Your task to perform on an android device: Add "logitech g903" to the cart on amazon.com, then select checkout. Image 0: 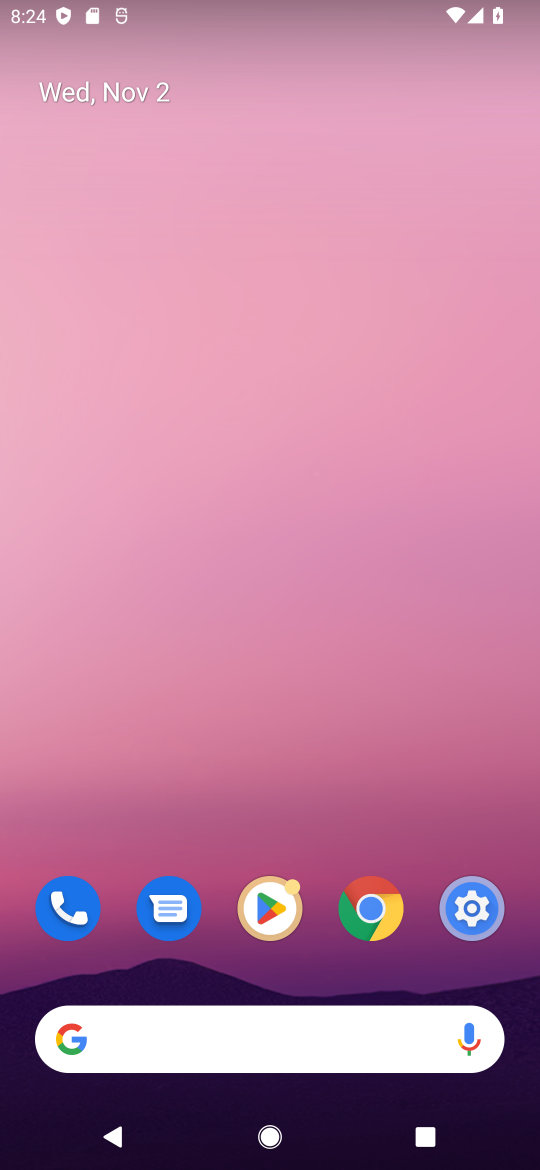
Step 0: click (191, 1024)
Your task to perform on an android device: Add "logitech g903" to the cart on amazon.com, then select checkout. Image 1: 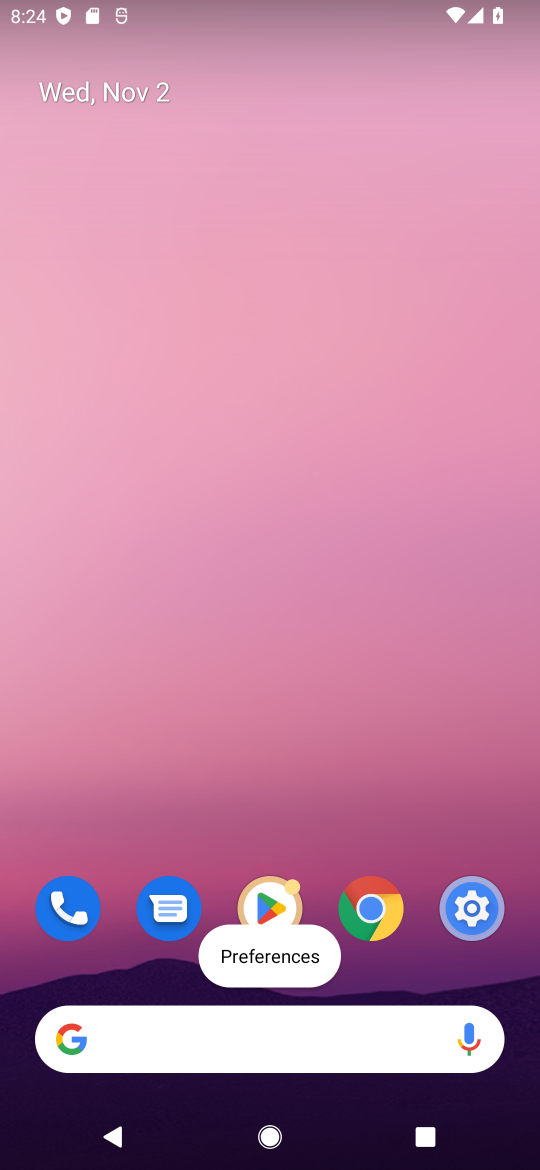
Step 1: click (191, 1024)
Your task to perform on an android device: Add "logitech g903" to the cart on amazon.com, then select checkout. Image 2: 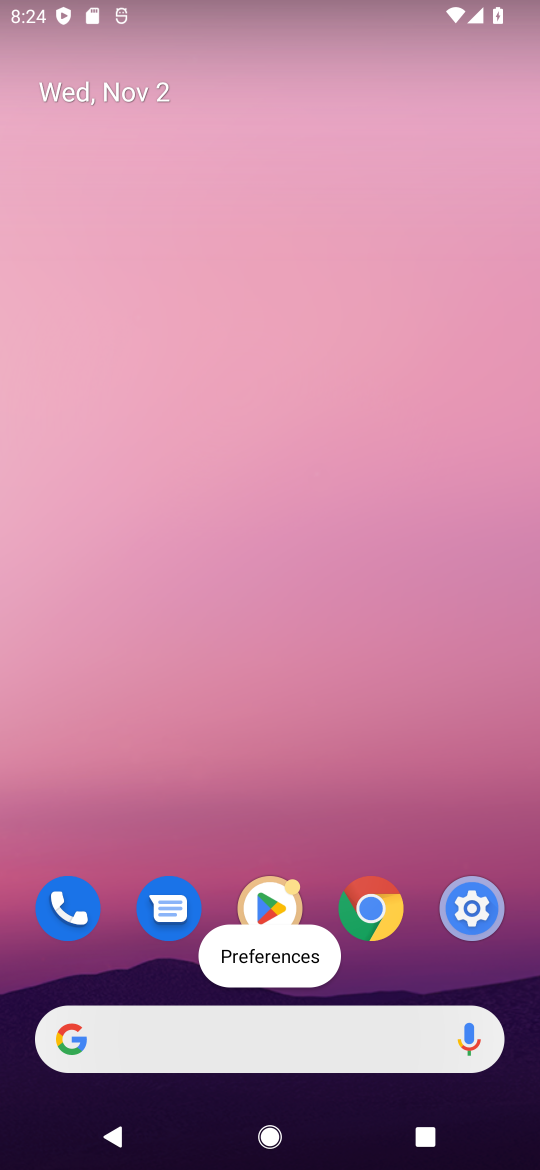
Step 2: click (191, 1024)
Your task to perform on an android device: Add "logitech g903" to the cart on amazon.com, then select checkout. Image 3: 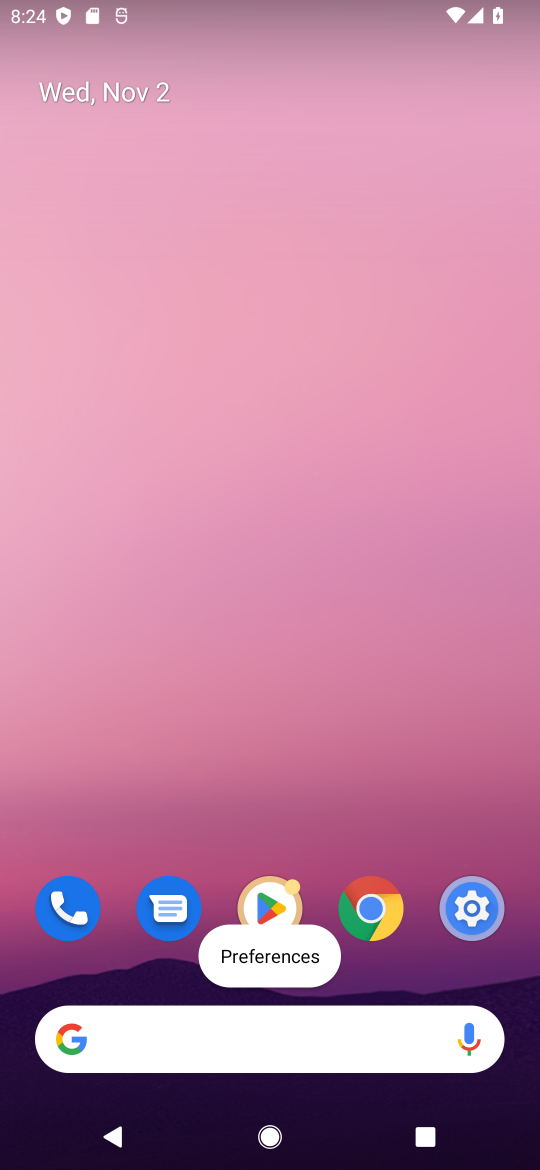
Step 3: click (197, 1046)
Your task to perform on an android device: Add "logitech g903" to the cart on amazon.com, then select checkout. Image 4: 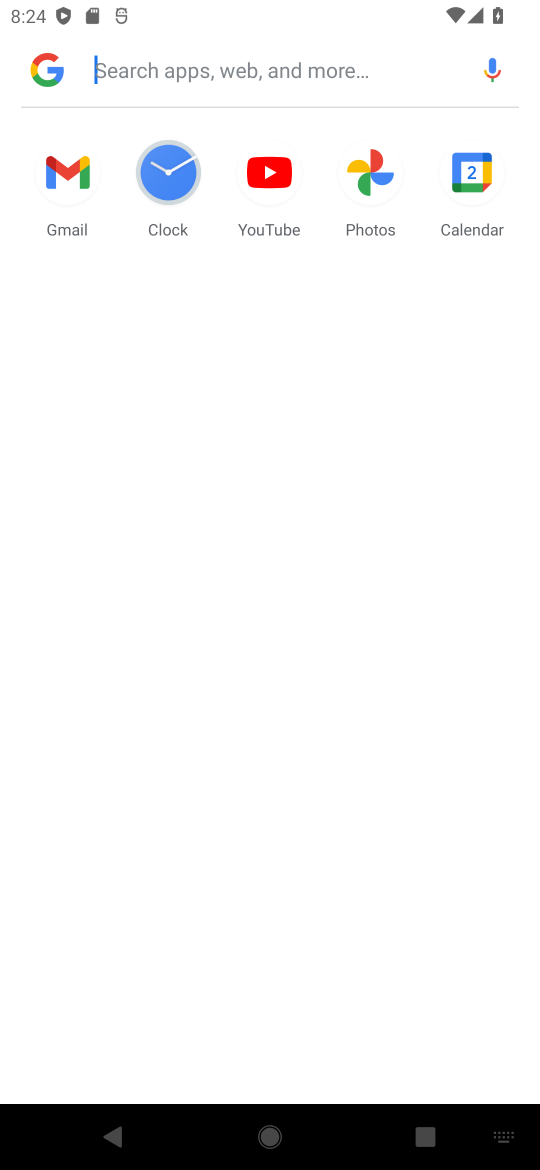
Step 4: type "amazon.com"
Your task to perform on an android device: Add "logitech g903" to the cart on amazon.com, then select checkout. Image 5: 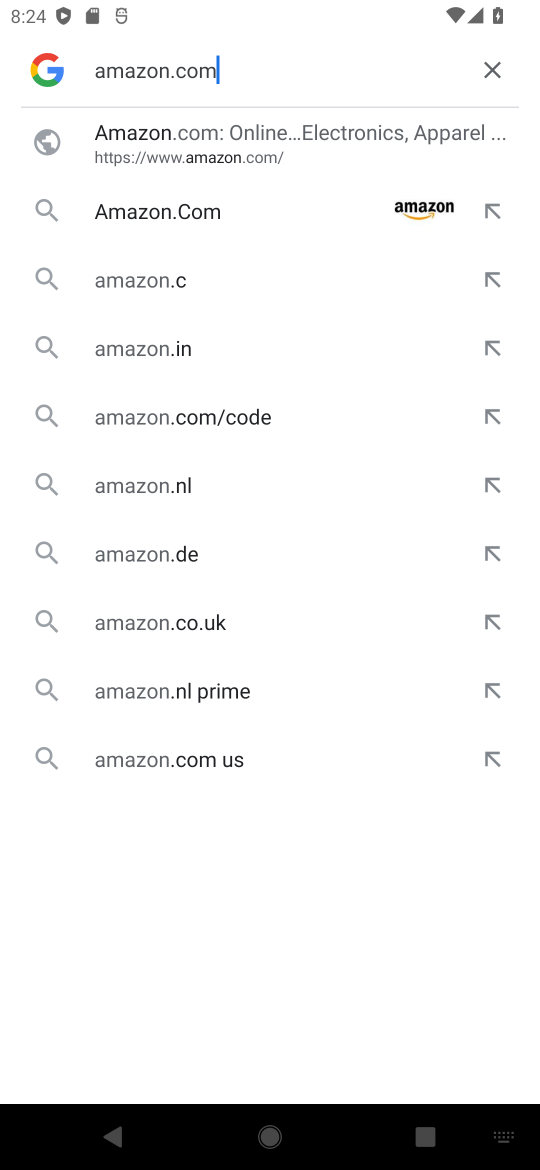
Step 5: type ""
Your task to perform on an android device: Add "logitech g903" to the cart on amazon.com, then select checkout. Image 6: 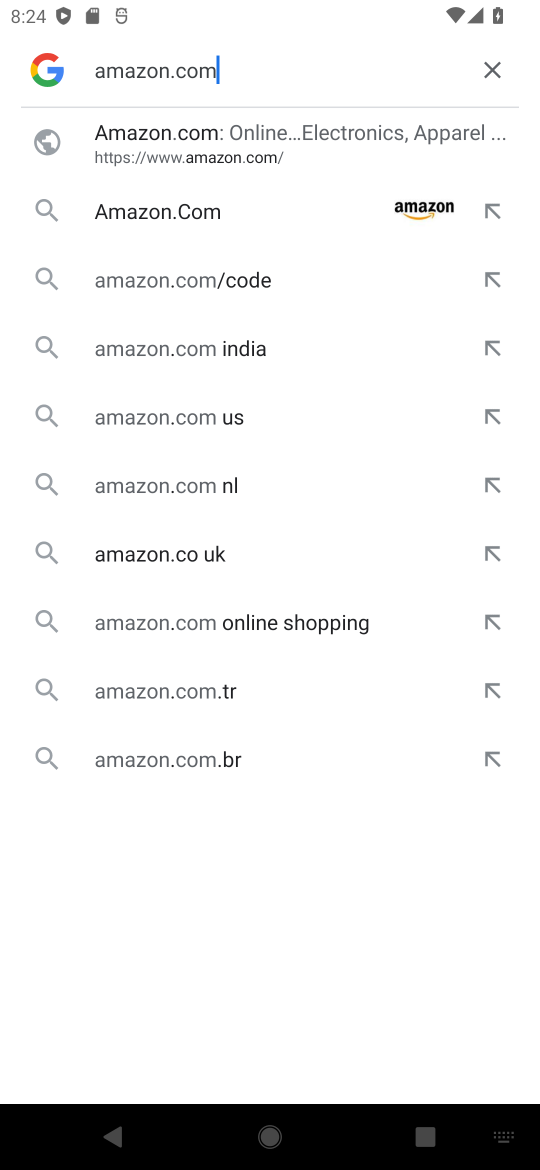
Step 6: press enter
Your task to perform on an android device: Add "logitech g903" to the cart on amazon.com, then select checkout. Image 7: 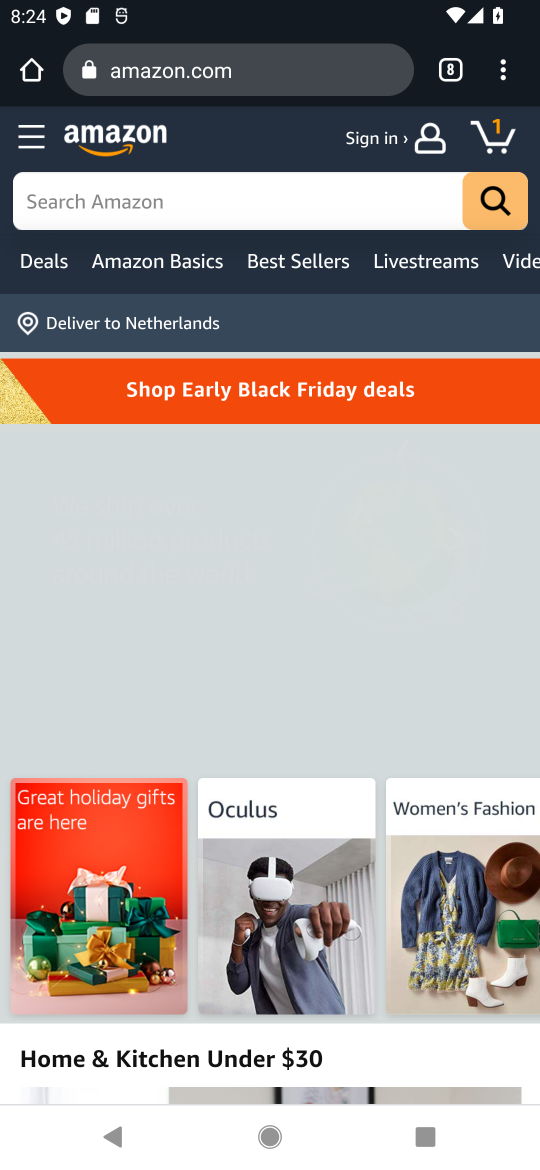
Step 7: click (137, 186)
Your task to perform on an android device: Add "logitech g903" to the cart on amazon.com, then select checkout. Image 8: 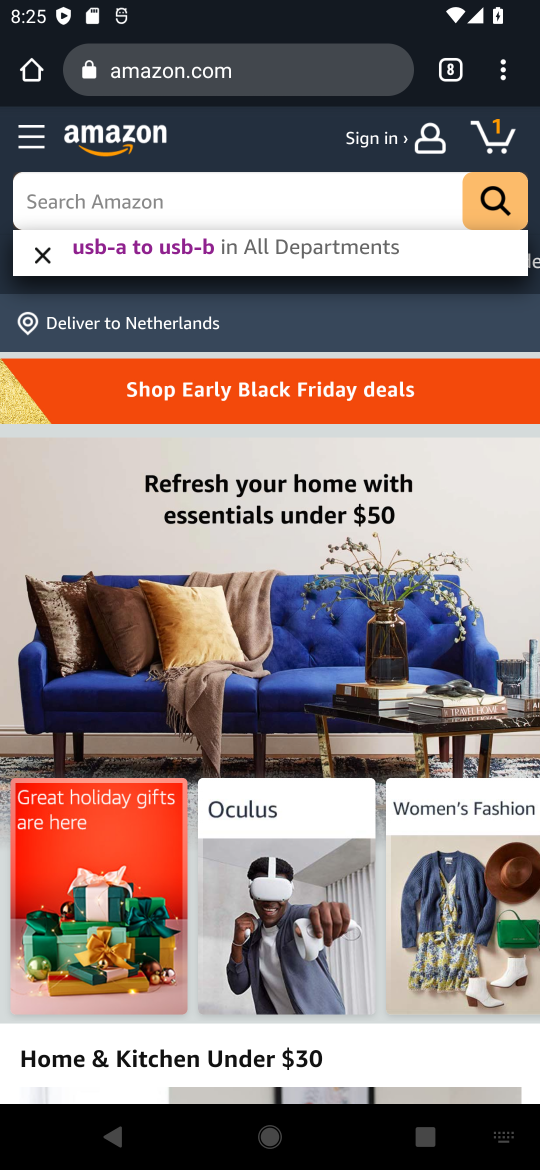
Step 8: type "logitech g903"
Your task to perform on an android device: Add "logitech g903" to the cart on amazon.com, then select checkout. Image 9: 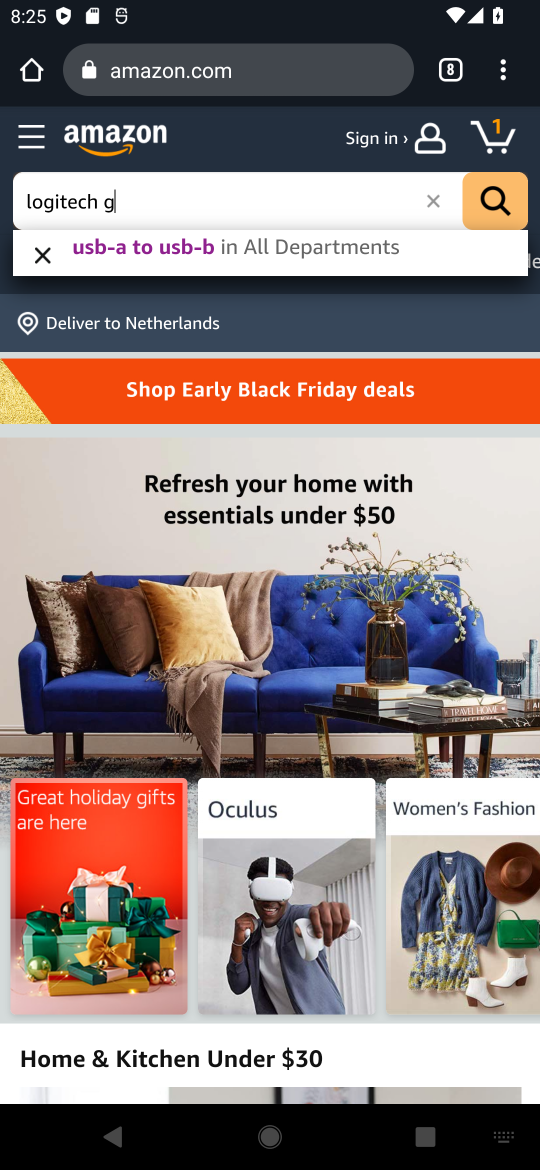
Step 9: type ""
Your task to perform on an android device: Add "logitech g903" to the cart on amazon.com, then select checkout. Image 10: 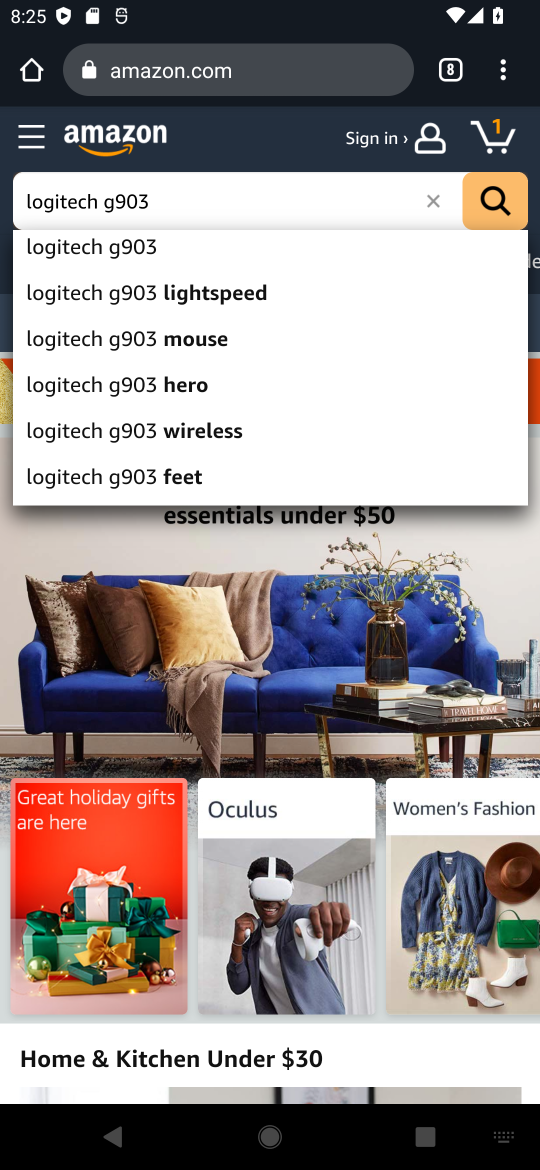
Step 10: press enter
Your task to perform on an android device: Add "logitech g903" to the cart on amazon.com, then select checkout. Image 11: 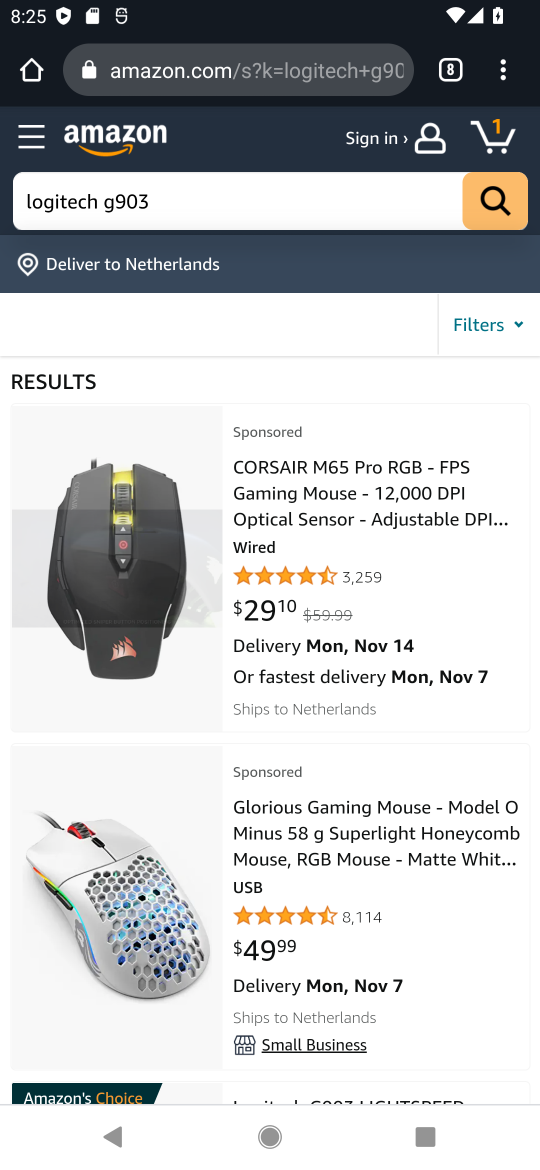
Step 11: click (327, 509)
Your task to perform on an android device: Add "logitech g903" to the cart on amazon.com, then select checkout. Image 12: 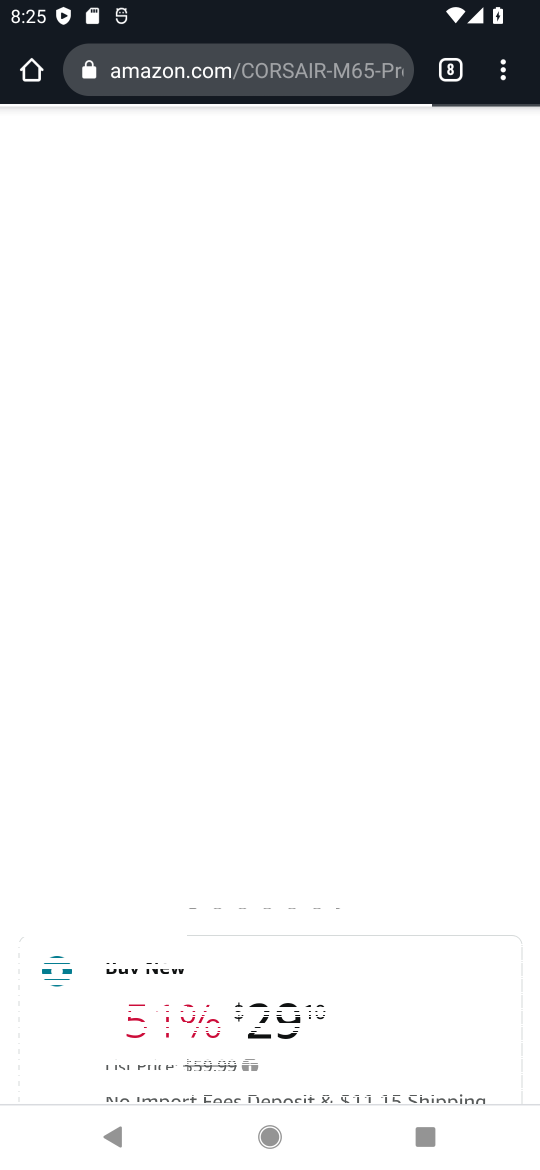
Step 12: drag from (414, 915) to (366, 413)
Your task to perform on an android device: Add "logitech g903" to the cart on amazon.com, then select checkout. Image 13: 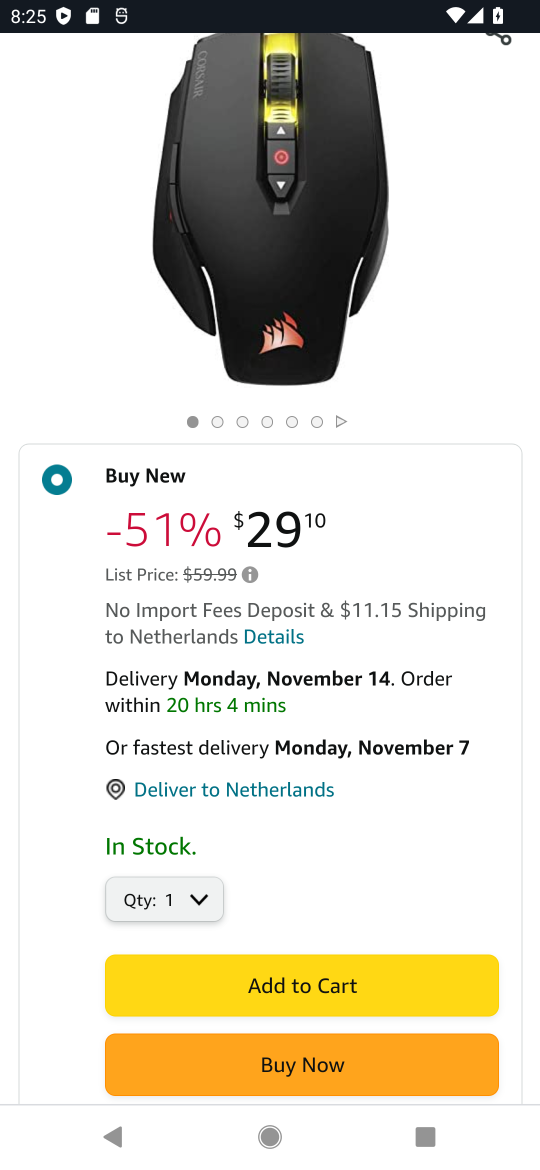
Step 13: click (304, 969)
Your task to perform on an android device: Add "logitech g903" to the cart on amazon.com, then select checkout. Image 14: 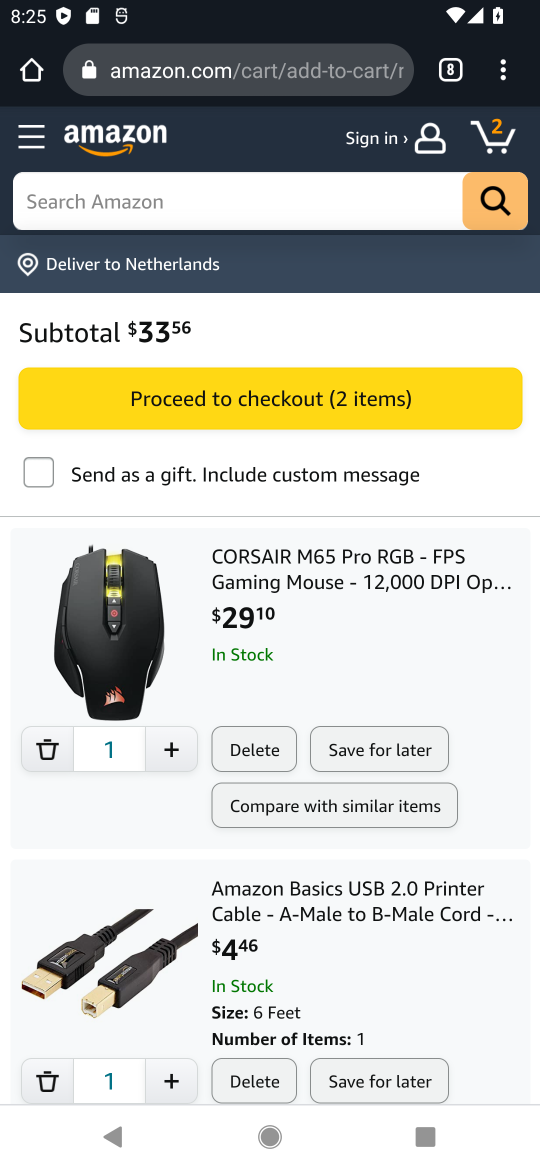
Step 14: click (366, 394)
Your task to perform on an android device: Add "logitech g903" to the cart on amazon.com, then select checkout. Image 15: 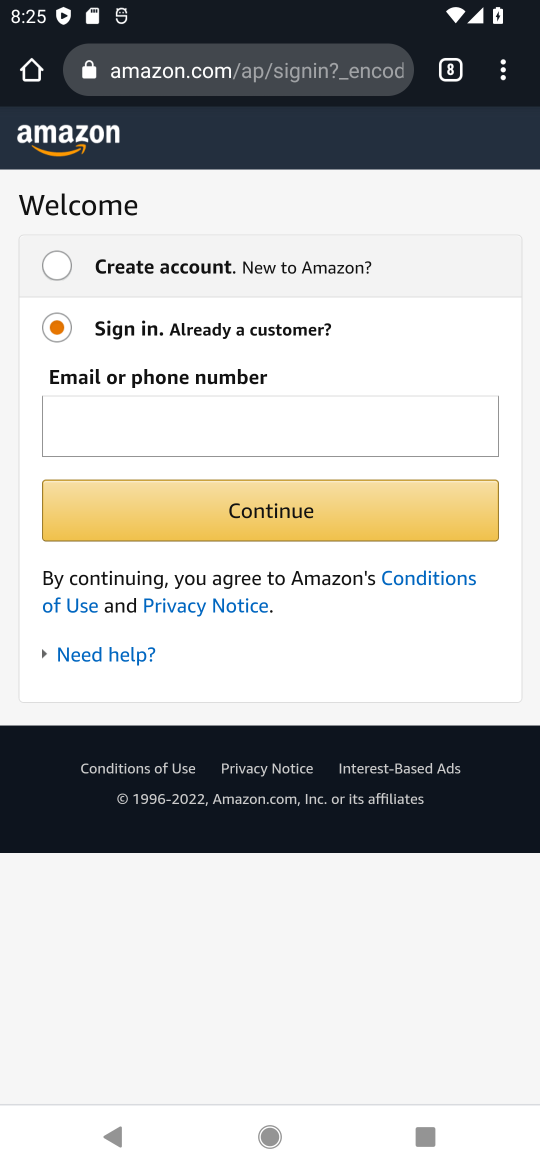
Step 15: task complete